Your task to perform on an android device: Open Google Maps and go to "Timeline" Image 0: 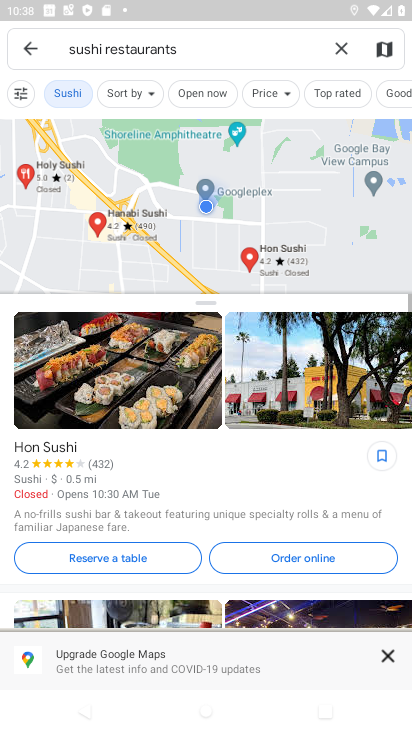
Step 0: drag from (214, 724) to (211, 466)
Your task to perform on an android device: Open Google Maps and go to "Timeline" Image 1: 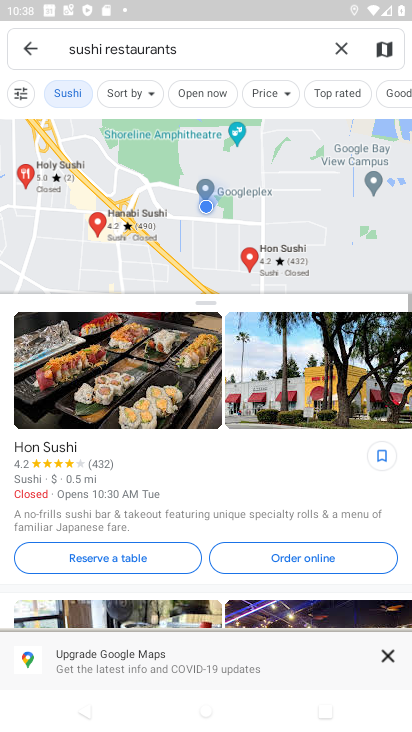
Step 1: drag from (195, 232) to (192, 198)
Your task to perform on an android device: Open Google Maps and go to "Timeline" Image 2: 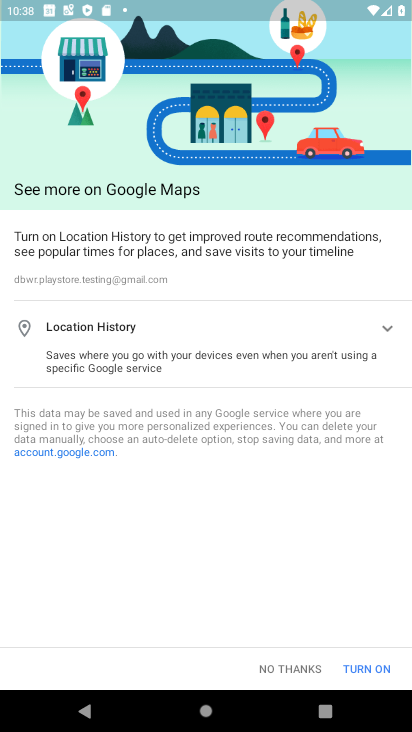
Step 2: press home button
Your task to perform on an android device: Open Google Maps and go to "Timeline" Image 3: 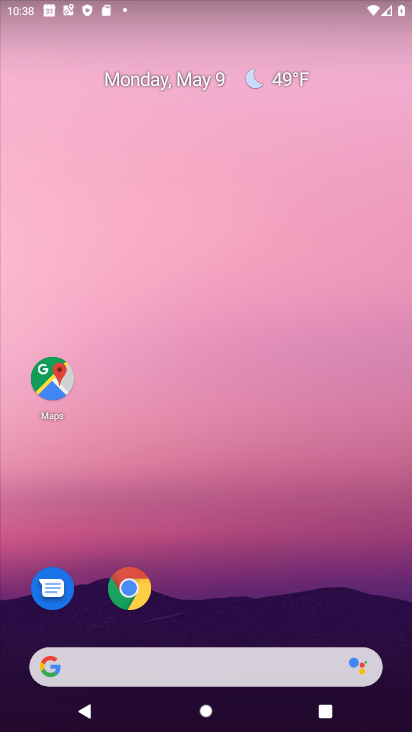
Step 3: drag from (215, 696) to (186, 232)
Your task to perform on an android device: Open Google Maps and go to "Timeline" Image 4: 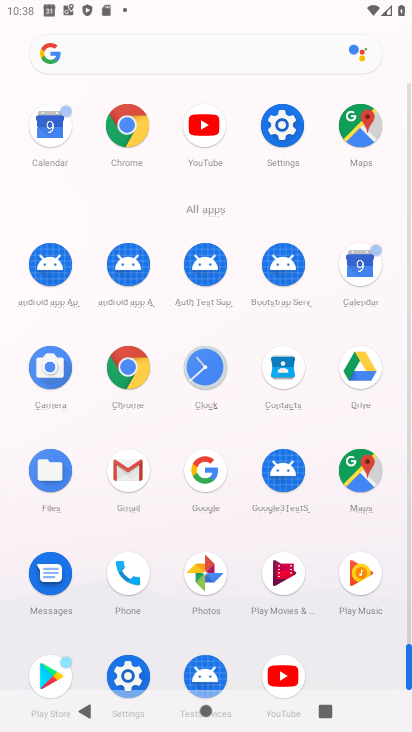
Step 4: click (202, 124)
Your task to perform on an android device: Open Google Maps and go to "Timeline" Image 5: 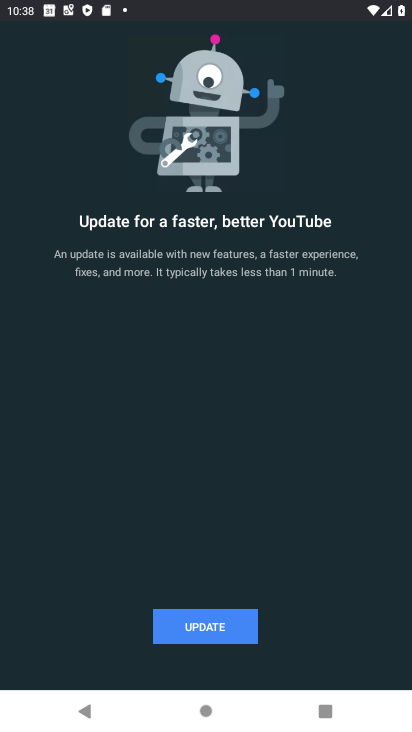
Step 5: task complete